Your task to perform on an android device: turn off wifi Image 0: 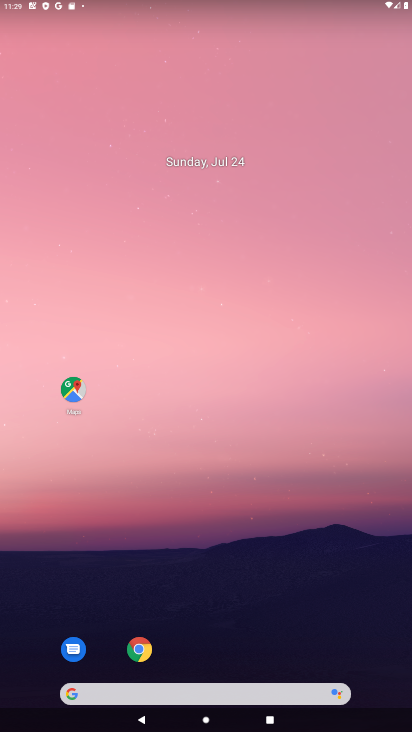
Step 0: press home button
Your task to perform on an android device: turn off wifi Image 1: 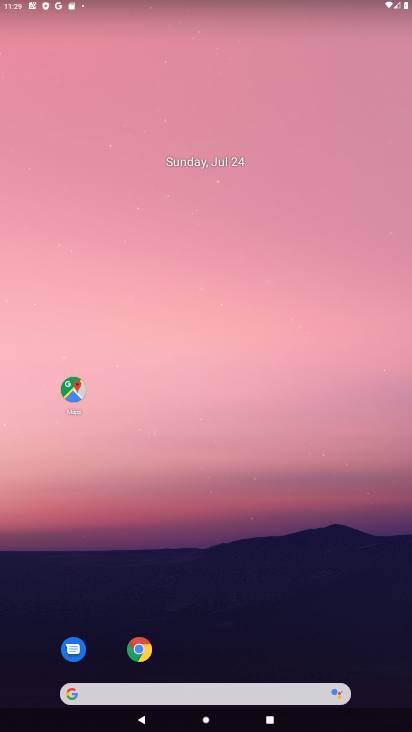
Step 1: click (169, 16)
Your task to perform on an android device: turn off wifi Image 2: 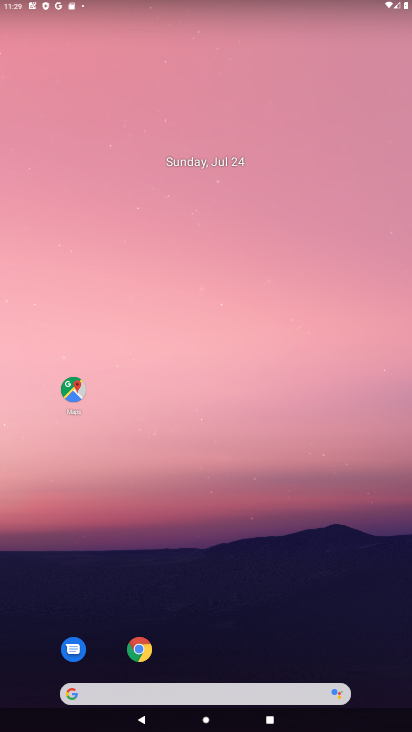
Step 2: drag from (201, 7) to (264, 552)
Your task to perform on an android device: turn off wifi Image 3: 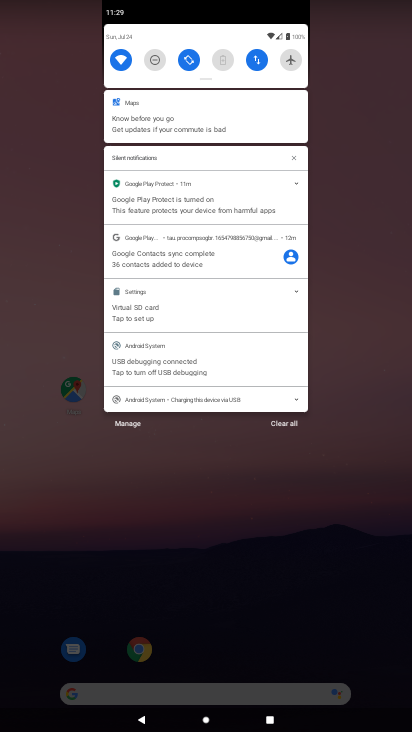
Step 3: click (121, 61)
Your task to perform on an android device: turn off wifi Image 4: 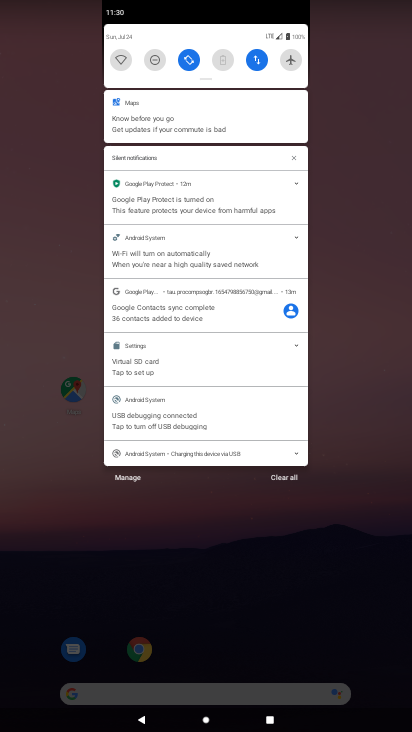
Step 4: task complete